Your task to perform on an android device: snooze an email in the gmail app Image 0: 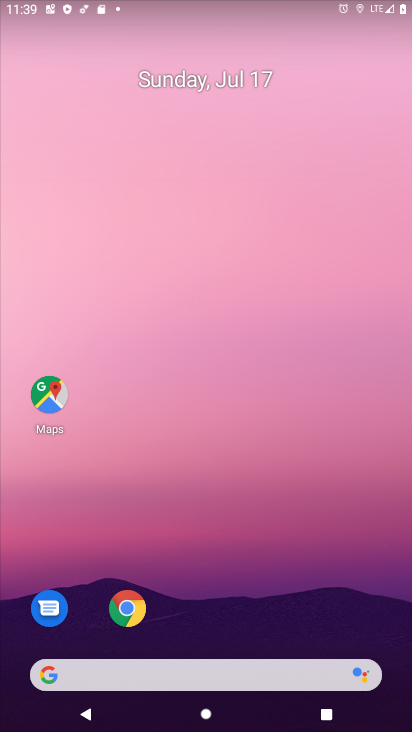
Step 0: click (179, 63)
Your task to perform on an android device: snooze an email in the gmail app Image 1: 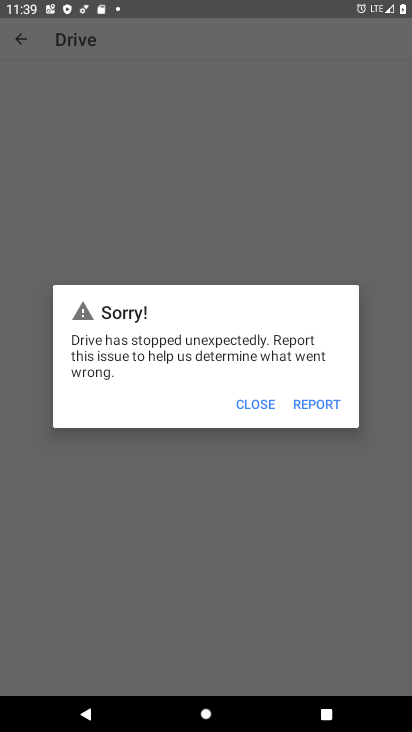
Step 1: press home button
Your task to perform on an android device: snooze an email in the gmail app Image 2: 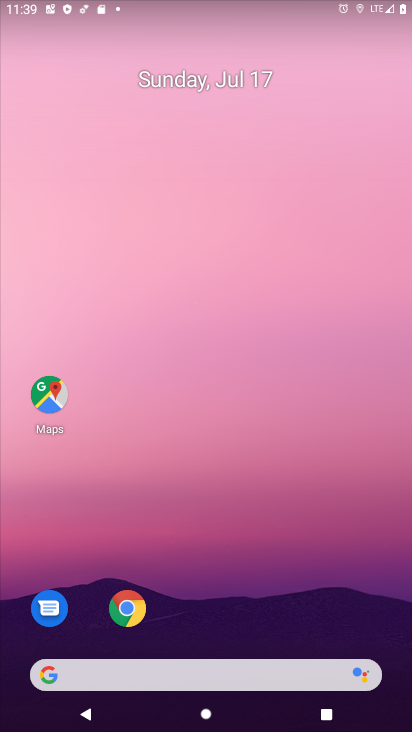
Step 2: drag from (212, 638) to (228, 17)
Your task to perform on an android device: snooze an email in the gmail app Image 3: 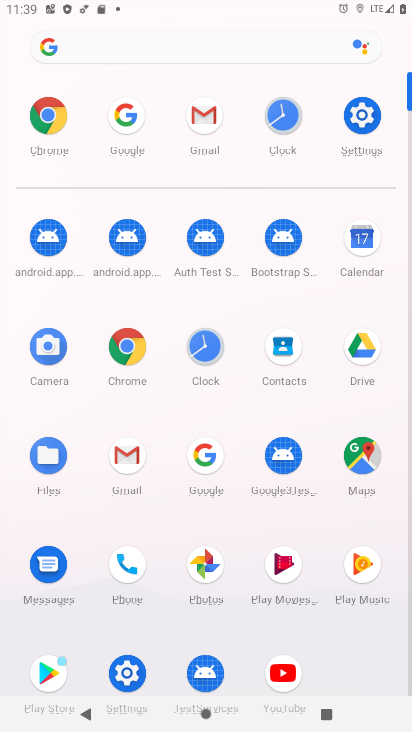
Step 3: click (131, 449)
Your task to perform on an android device: snooze an email in the gmail app Image 4: 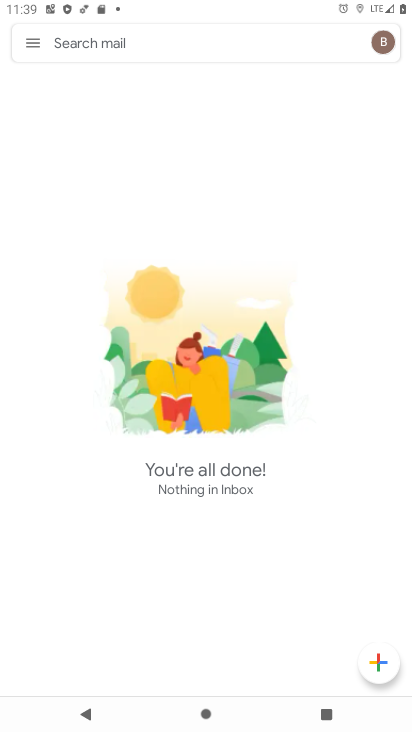
Step 4: click (29, 38)
Your task to perform on an android device: snooze an email in the gmail app Image 5: 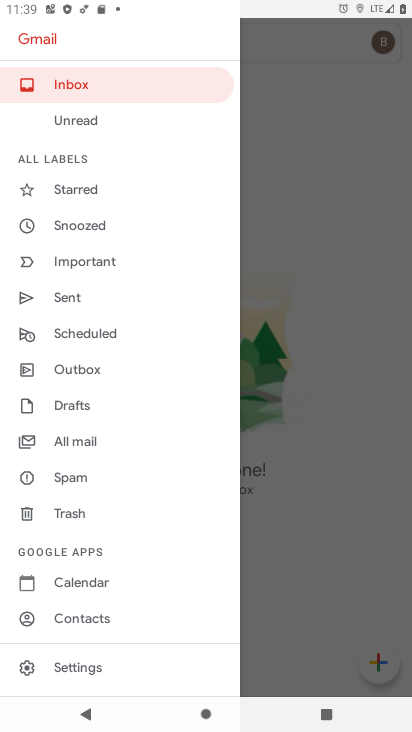
Step 5: click (269, 135)
Your task to perform on an android device: snooze an email in the gmail app Image 6: 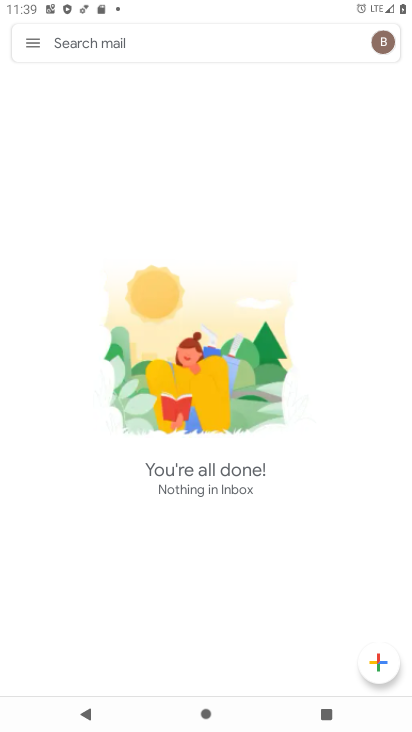
Step 6: task complete